Your task to perform on an android device: manage bookmarks in the chrome app Image 0: 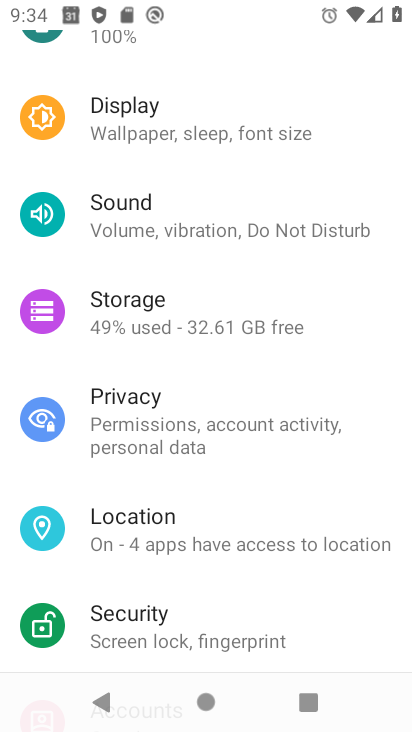
Step 0: press home button
Your task to perform on an android device: manage bookmarks in the chrome app Image 1: 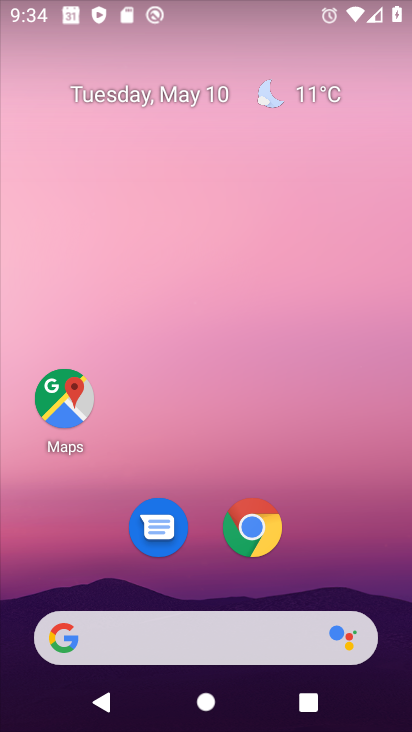
Step 1: click (264, 521)
Your task to perform on an android device: manage bookmarks in the chrome app Image 2: 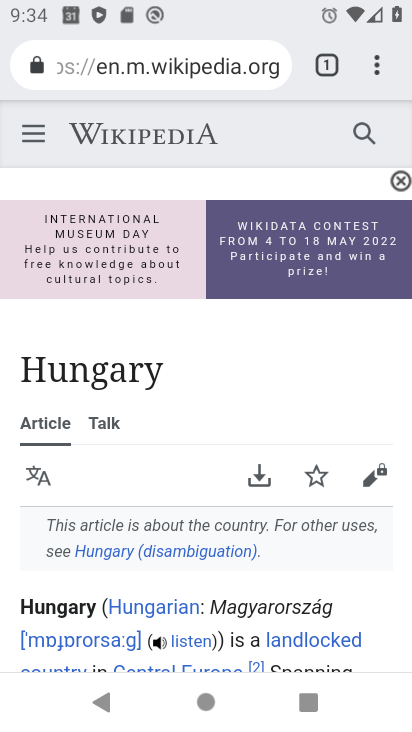
Step 2: click (383, 62)
Your task to perform on an android device: manage bookmarks in the chrome app Image 3: 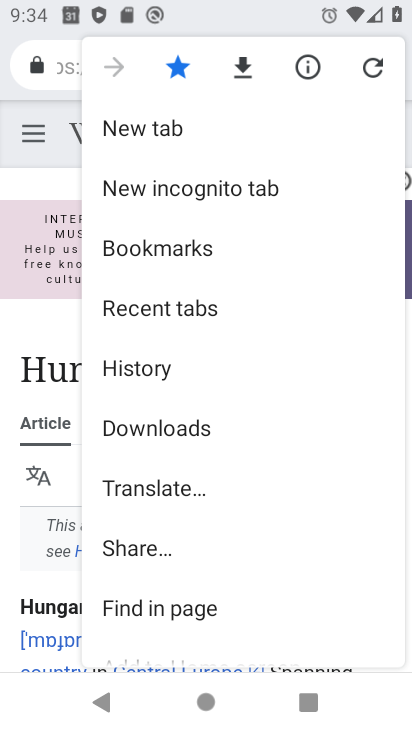
Step 3: click (155, 251)
Your task to perform on an android device: manage bookmarks in the chrome app Image 4: 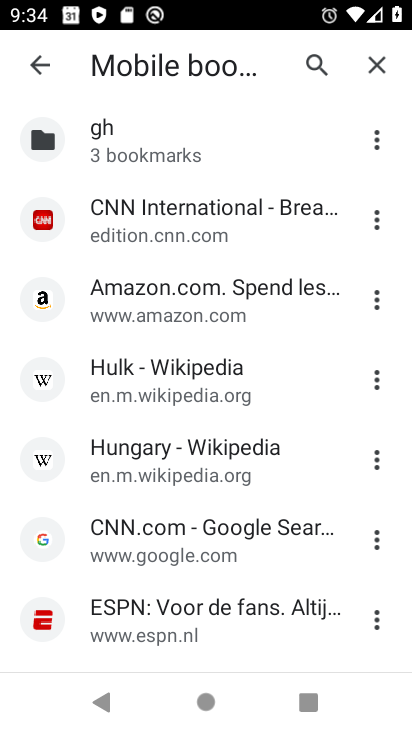
Step 4: click (30, 539)
Your task to perform on an android device: manage bookmarks in the chrome app Image 5: 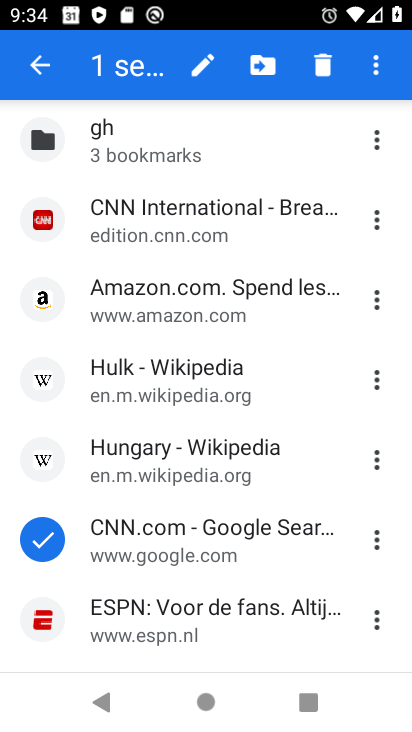
Step 5: click (39, 461)
Your task to perform on an android device: manage bookmarks in the chrome app Image 6: 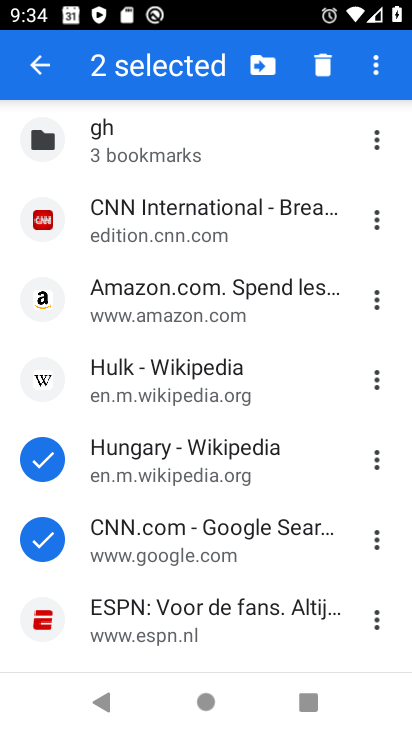
Step 6: click (43, 381)
Your task to perform on an android device: manage bookmarks in the chrome app Image 7: 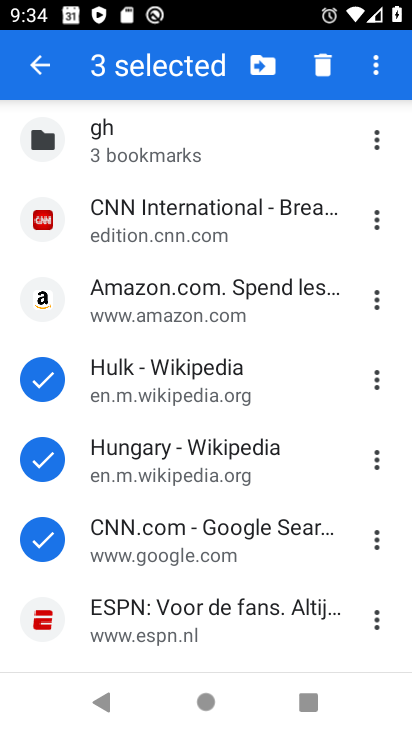
Step 7: click (42, 298)
Your task to perform on an android device: manage bookmarks in the chrome app Image 8: 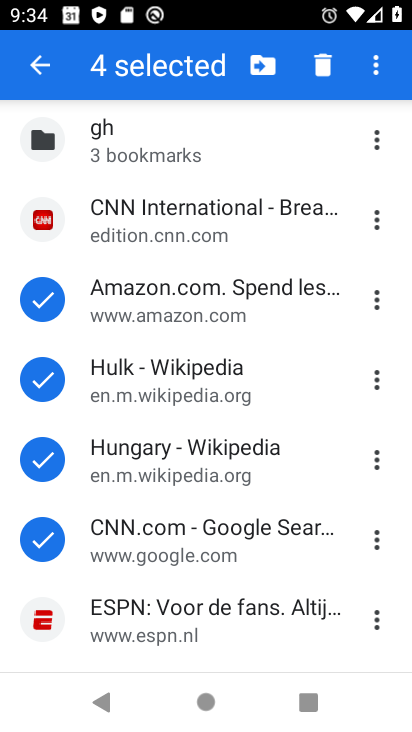
Step 8: click (45, 216)
Your task to perform on an android device: manage bookmarks in the chrome app Image 9: 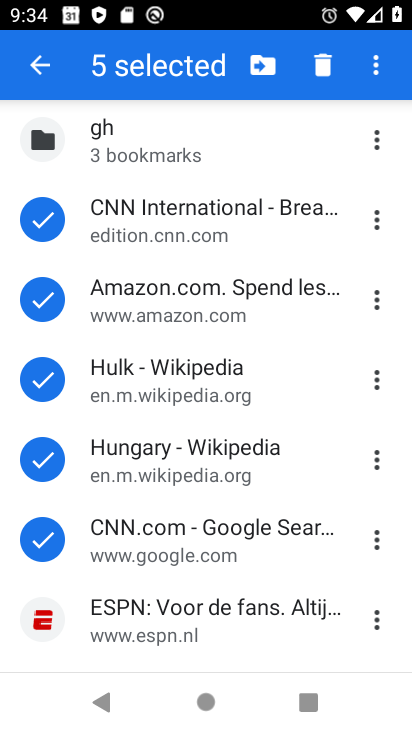
Step 9: click (46, 143)
Your task to perform on an android device: manage bookmarks in the chrome app Image 10: 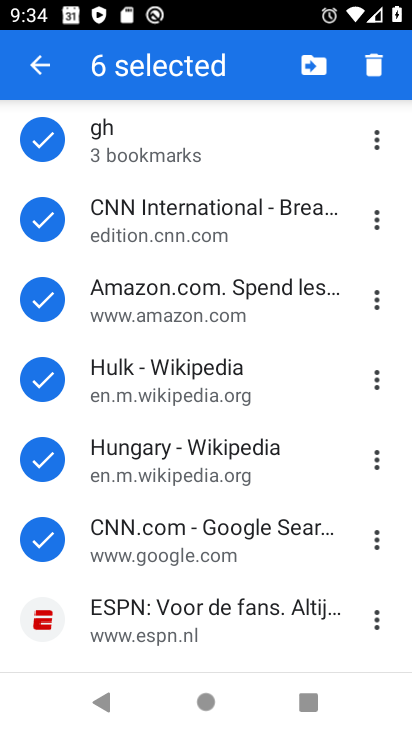
Step 10: click (40, 616)
Your task to perform on an android device: manage bookmarks in the chrome app Image 11: 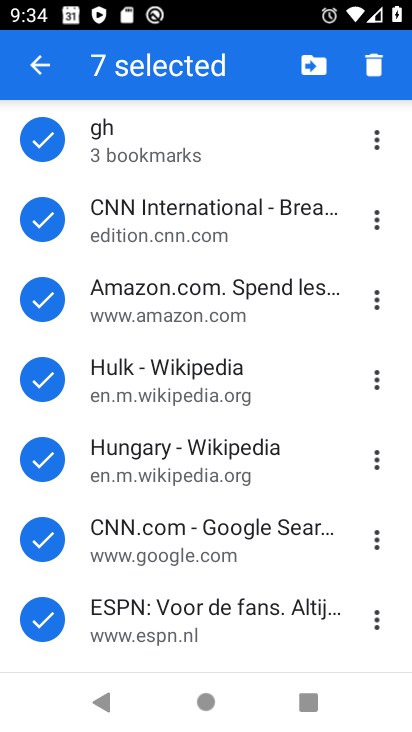
Step 11: click (366, 65)
Your task to perform on an android device: manage bookmarks in the chrome app Image 12: 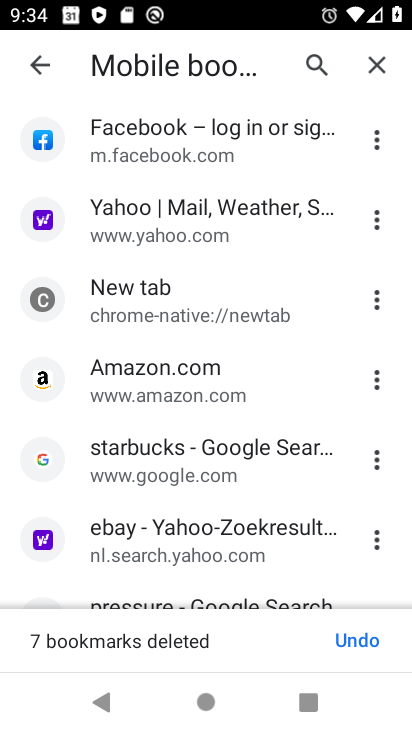
Step 12: click (35, 379)
Your task to perform on an android device: manage bookmarks in the chrome app Image 13: 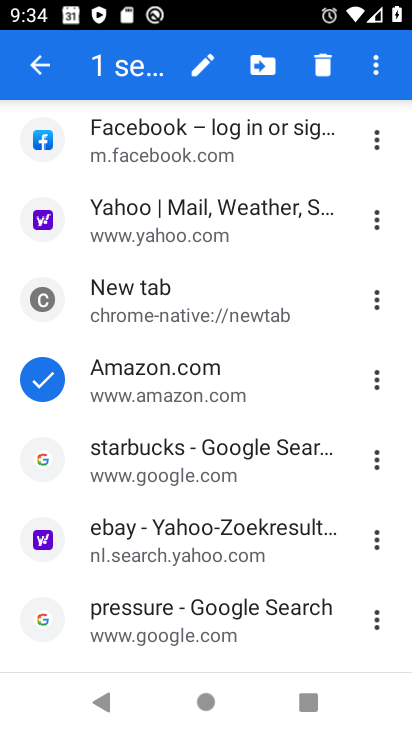
Step 13: click (40, 290)
Your task to perform on an android device: manage bookmarks in the chrome app Image 14: 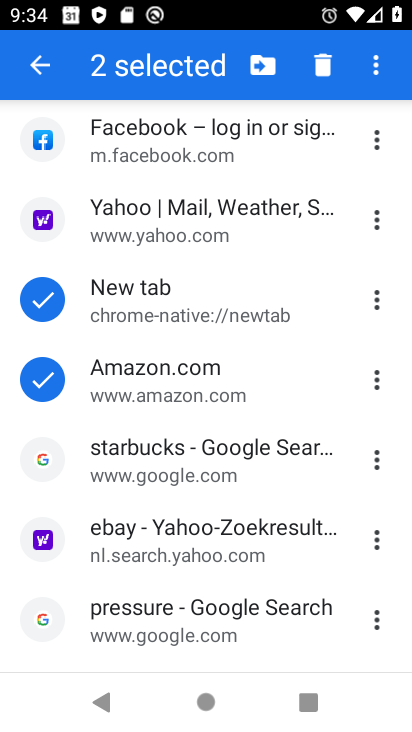
Step 14: click (37, 226)
Your task to perform on an android device: manage bookmarks in the chrome app Image 15: 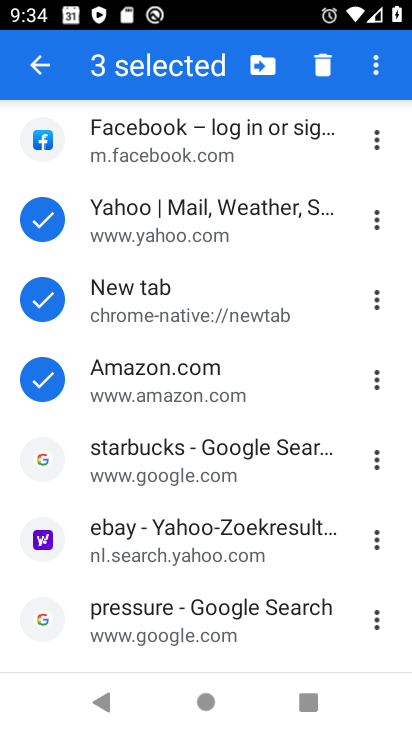
Step 15: click (269, 65)
Your task to perform on an android device: manage bookmarks in the chrome app Image 16: 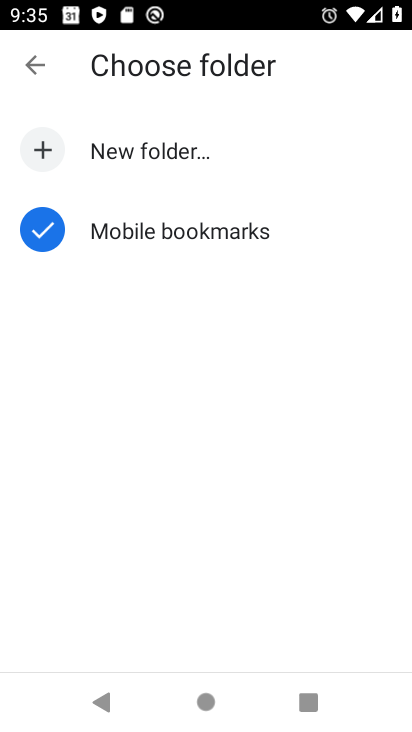
Step 16: click (96, 145)
Your task to perform on an android device: manage bookmarks in the chrome app Image 17: 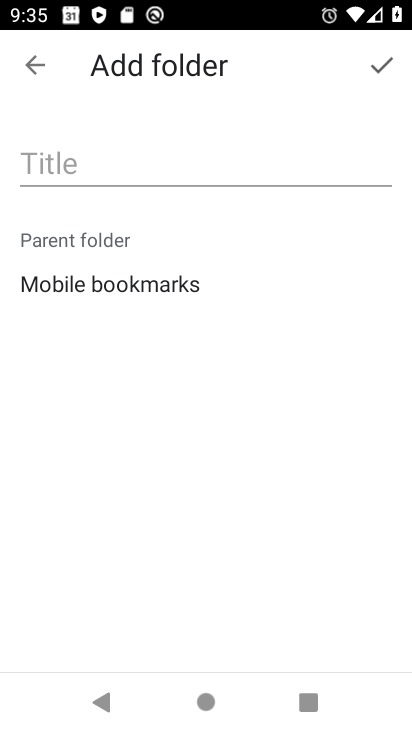
Step 17: type "bm"
Your task to perform on an android device: manage bookmarks in the chrome app Image 18: 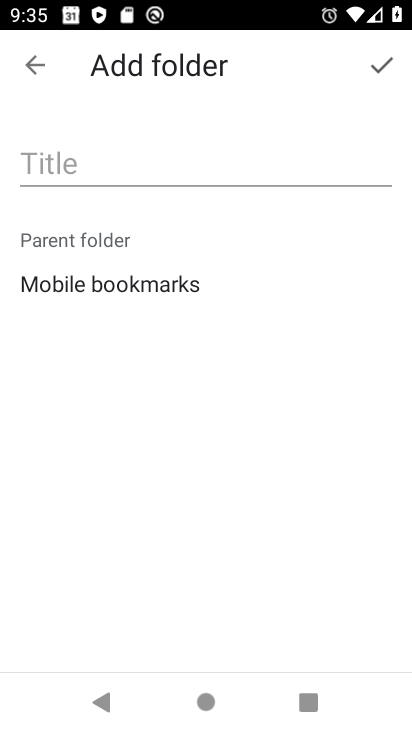
Step 18: click (383, 65)
Your task to perform on an android device: manage bookmarks in the chrome app Image 19: 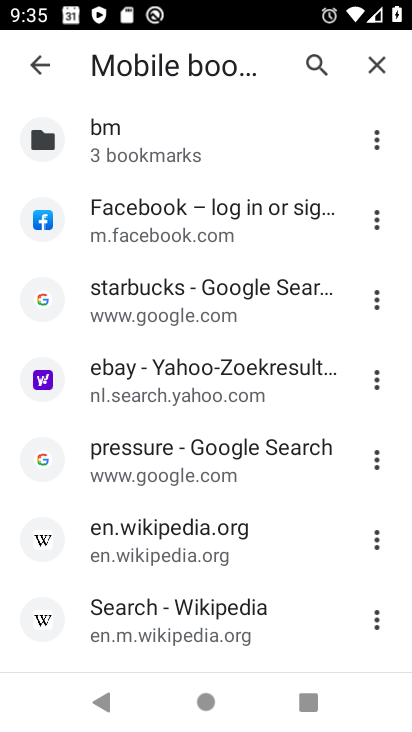
Step 19: task complete